Your task to perform on an android device: change keyboard looks Image 0: 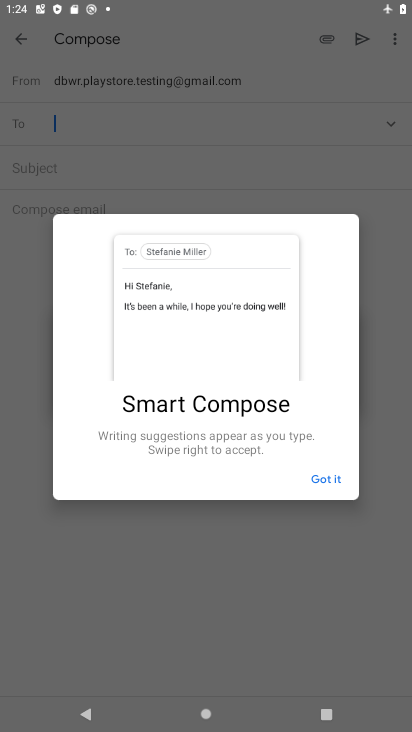
Step 0: press home button
Your task to perform on an android device: change keyboard looks Image 1: 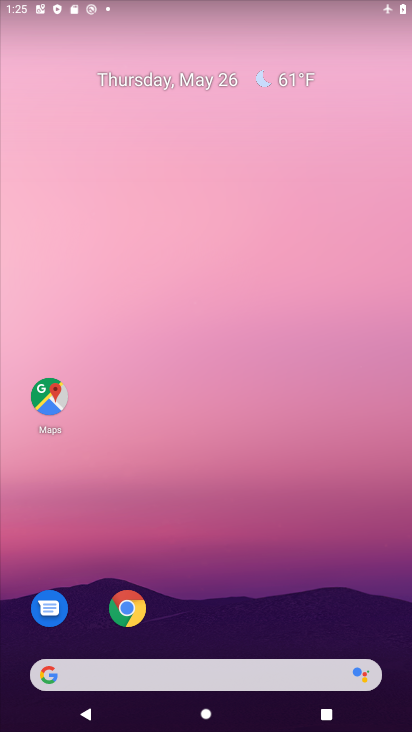
Step 1: drag from (357, 610) to (328, 12)
Your task to perform on an android device: change keyboard looks Image 2: 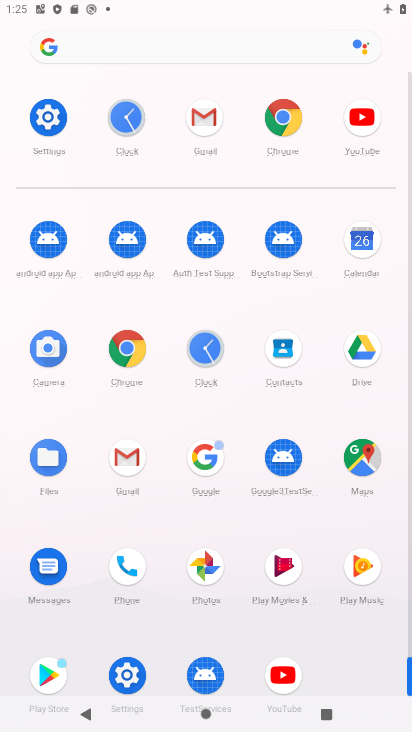
Step 2: click (126, 677)
Your task to perform on an android device: change keyboard looks Image 3: 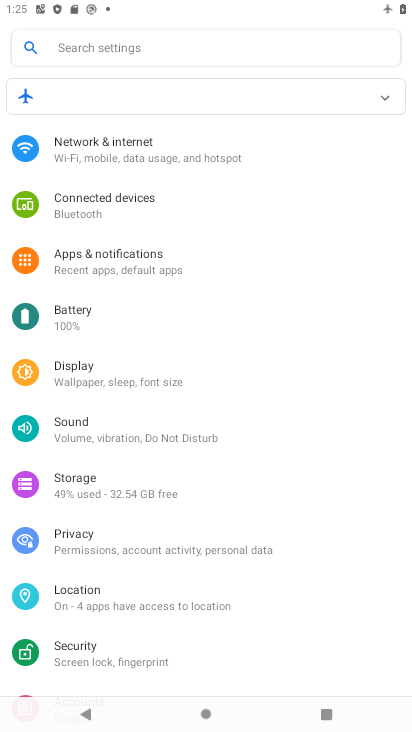
Step 3: drag from (323, 620) to (284, 183)
Your task to perform on an android device: change keyboard looks Image 4: 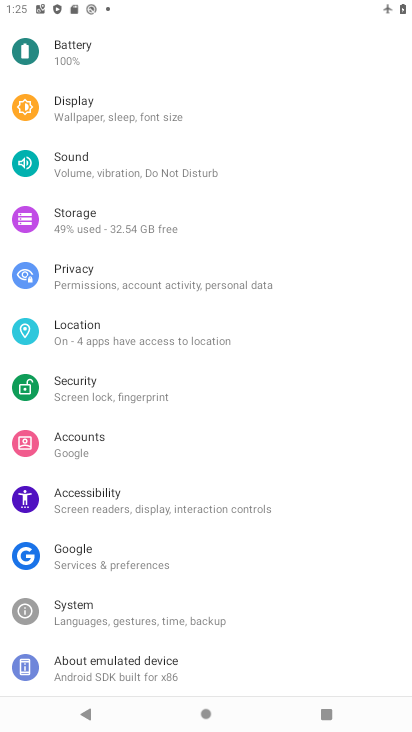
Step 4: click (105, 621)
Your task to perform on an android device: change keyboard looks Image 5: 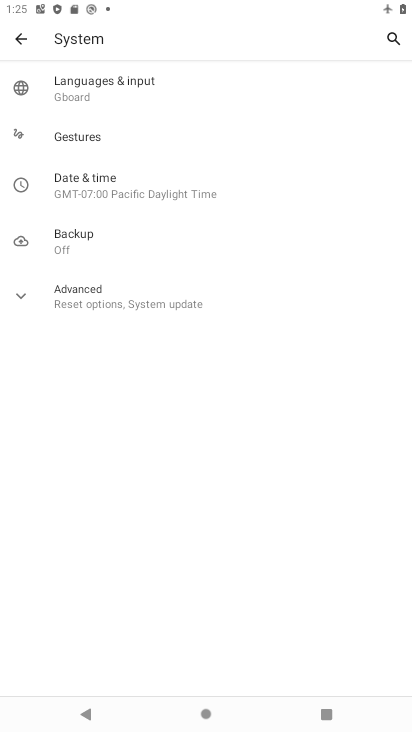
Step 5: click (87, 85)
Your task to perform on an android device: change keyboard looks Image 6: 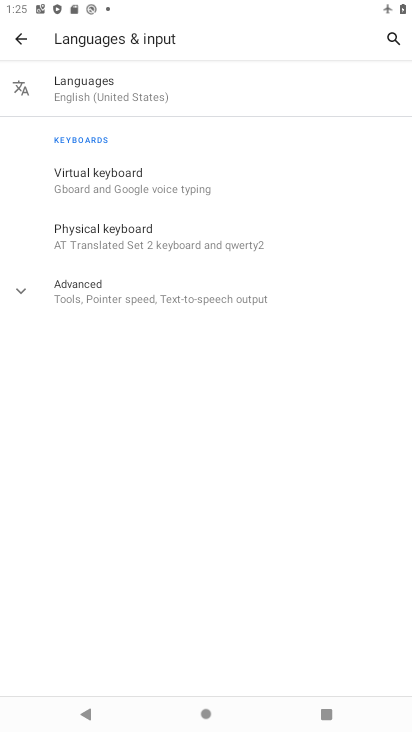
Step 6: click (81, 230)
Your task to perform on an android device: change keyboard looks Image 7: 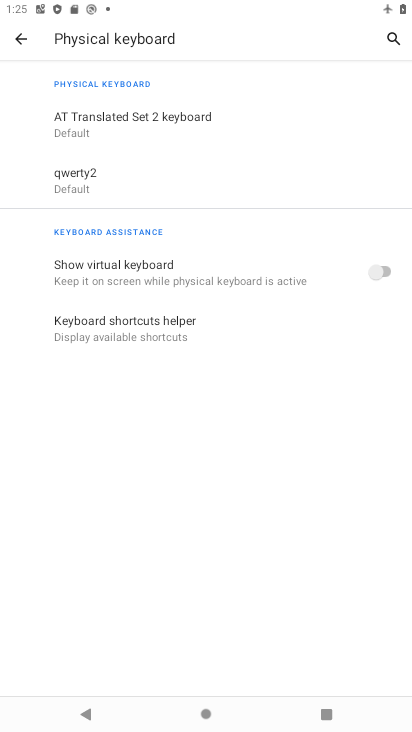
Step 7: click (88, 173)
Your task to perform on an android device: change keyboard looks Image 8: 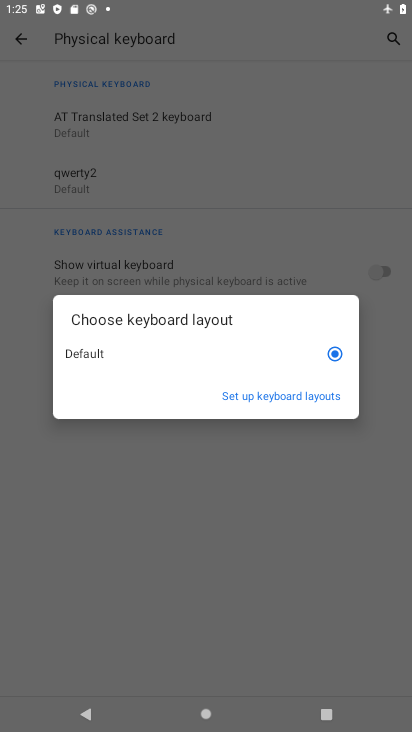
Step 8: click (282, 400)
Your task to perform on an android device: change keyboard looks Image 9: 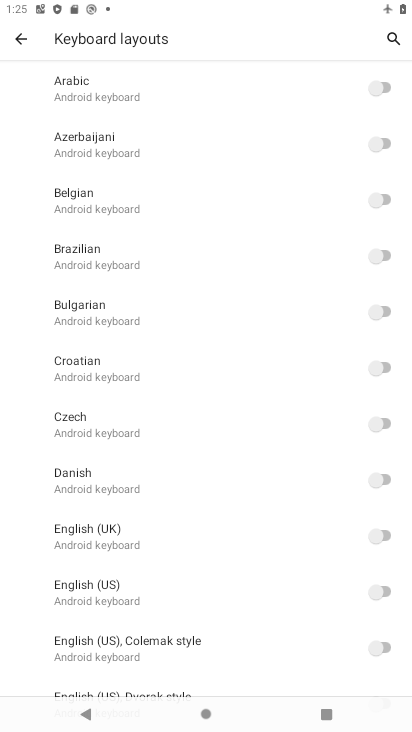
Step 9: click (384, 530)
Your task to perform on an android device: change keyboard looks Image 10: 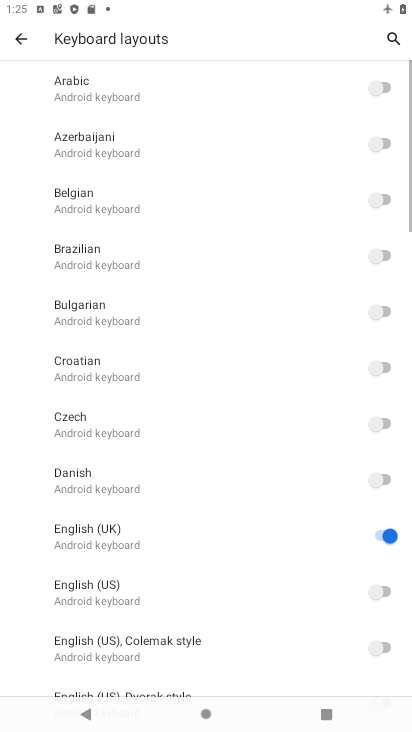
Step 10: task complete